Your task to perform on an android device: Open calendar and show me the second week of next month Image 0: 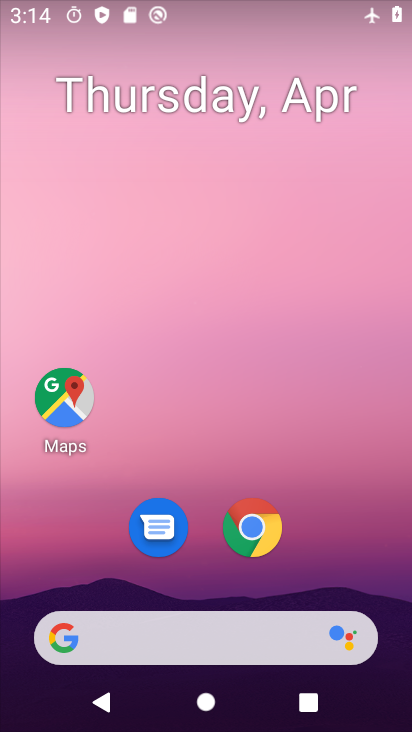
Step 0: drag from (330, 522) to (285, 167)
Your task to perform on an android device: Open calendar and show me the second week of next month Image 1: 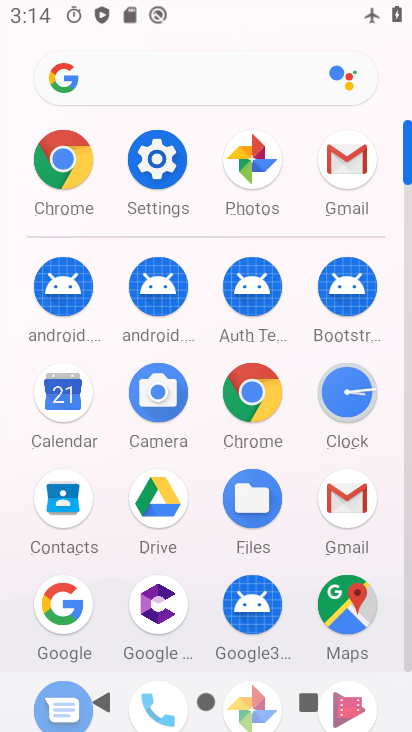
Step 1: click (57, 397)
Your task to perform on an android device: Open calendar and show me the second week of next month Image 2: 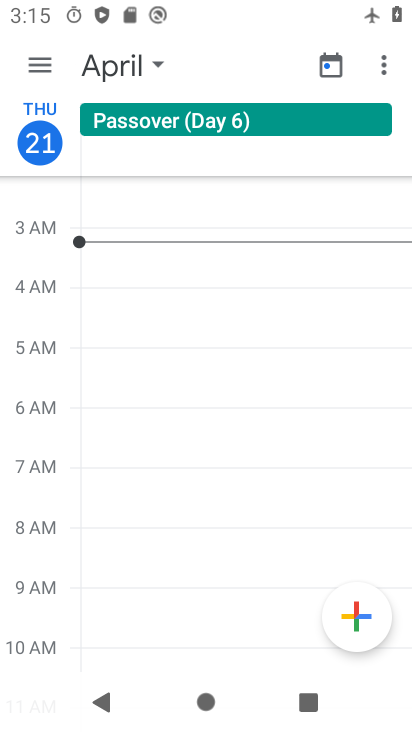
Step 2: click (137, 64)
Your task to perform on an android device: Open calendar and show me the second week of next month Image 3: 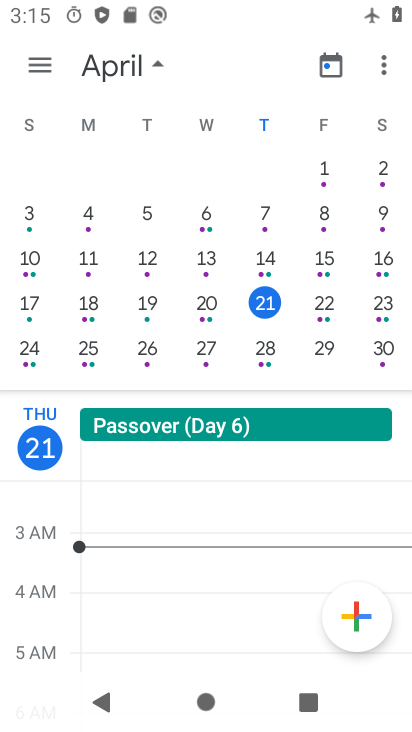
Step 3: drag from (368, 298) to (59, 248)
Your task to perform on an android device: Open calendar and show me the second week of next month Image 4: 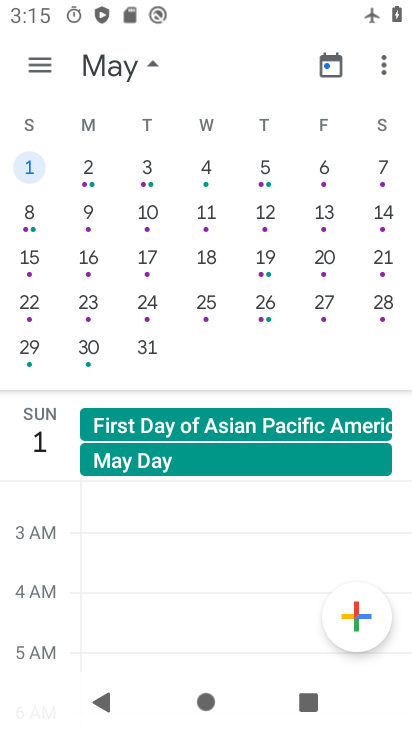
Step 4: click (138, 208)
Your task to perform on an android device: Open calendar and show me the second week of next month Image 5: 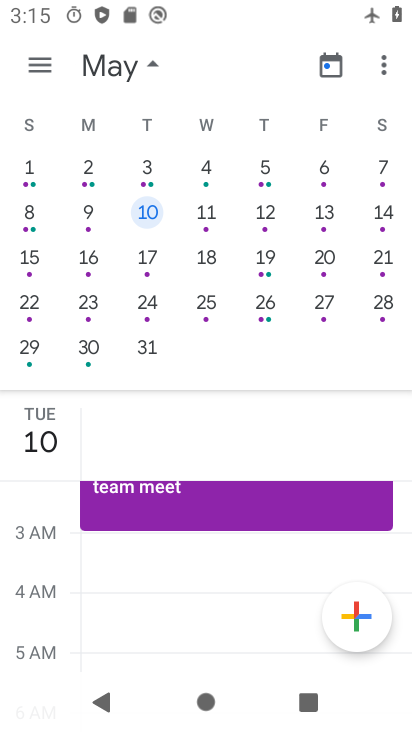
Step 5: task complete